Your task to perform on an android device: Open the calendar and show me this week's events? Image 0: 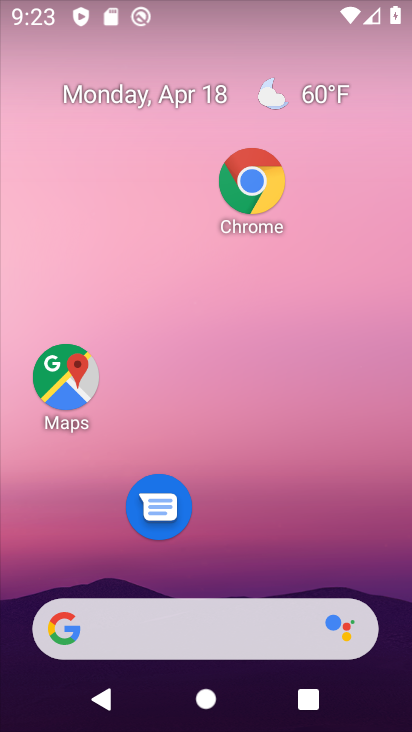
Step 0: drag from (261, 608) to (207, 112)
Your task to perform on an android device: Open the calendar and show me this week's events? Image 1: 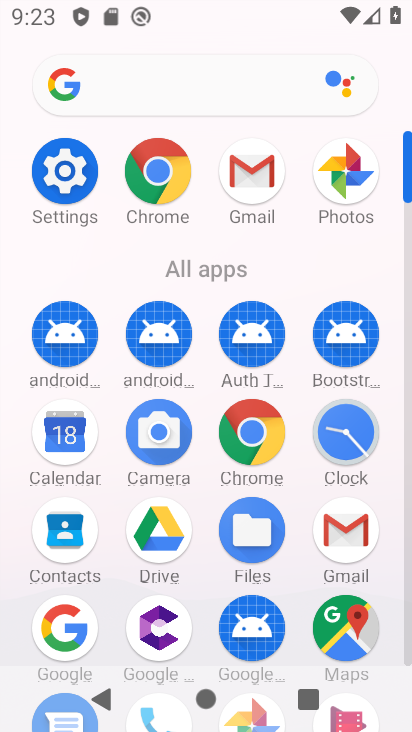
Step 1: click (60, 441)
Your task to perform on an android device: Open the calendar and show me this week's events? Image 2: 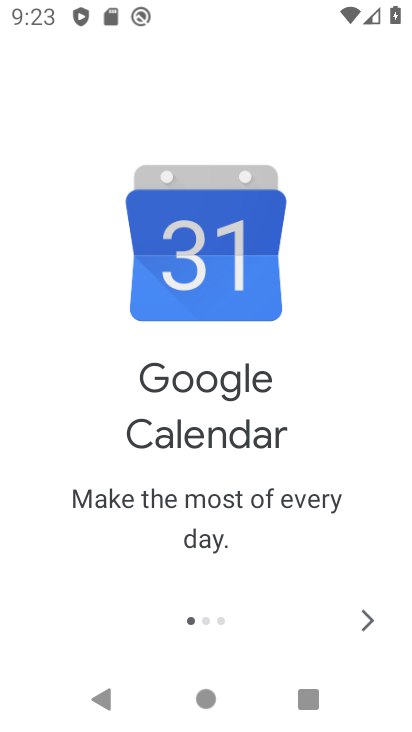
Step 2: click (367, 613)
Your task to perform on an android device: Open the calendar and show me this week's events? Image 3: 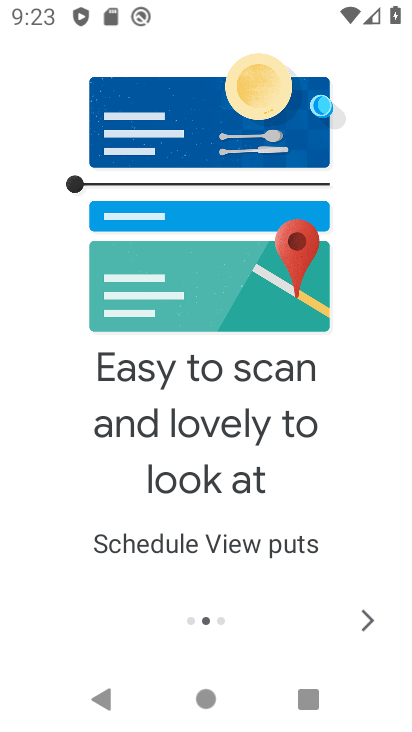
Step 3: click (369, 621)
Your task to perform on an android device: Open the calendar and show me this week's events? Image 4: 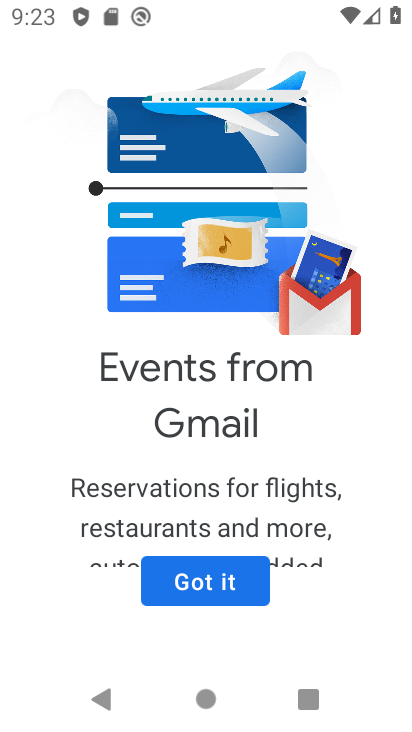
Step 4: click (174, 585)
Your task to perform on an android device: Open the calendar and show me this week's events? Image 5: 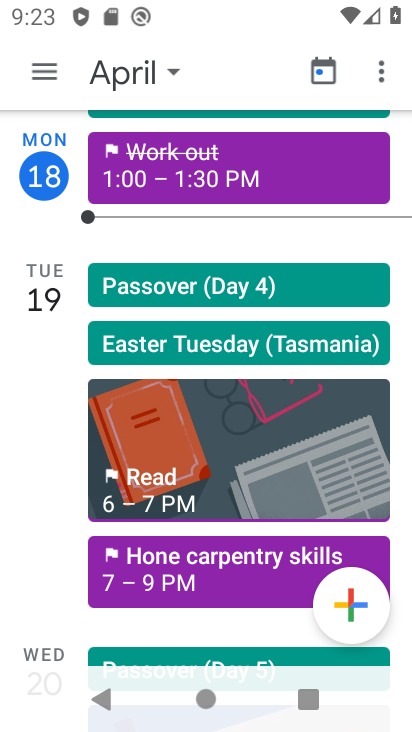
Step 5: click (52, 68)
Your task to perform on an android device: Open the calendar and show me this week's events? Image 6: 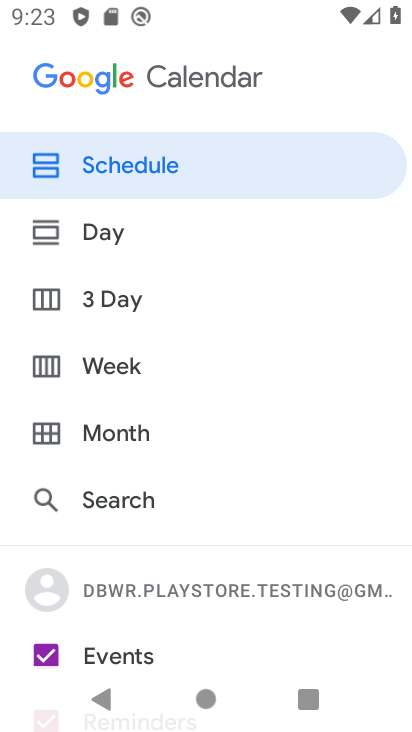
Step 6: click (97, 165)
Your task to perform on an android device: Open the calendar and show me this week's events? Image 7: 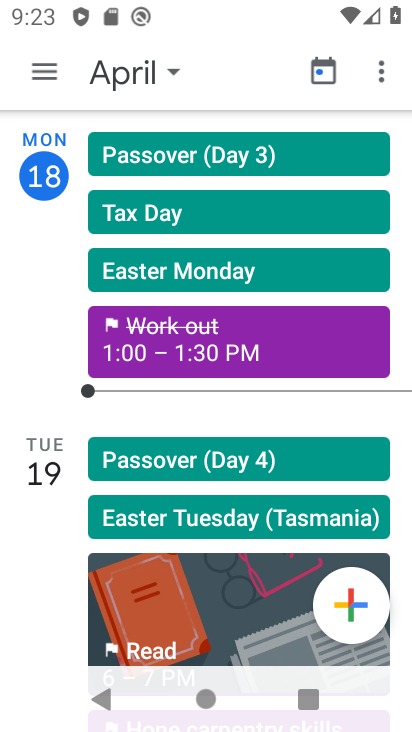
Step 7: click (39, 74)
Your task to perform on an android device: Open the calendar and show me this week's events? Image 8: 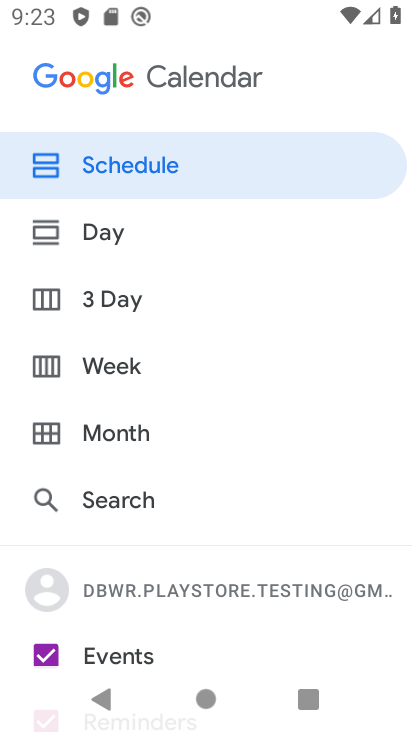
Step 8: click (93, 356)
Your task to perform on an android device: Open the calendar and show me this week's events? Image 9: 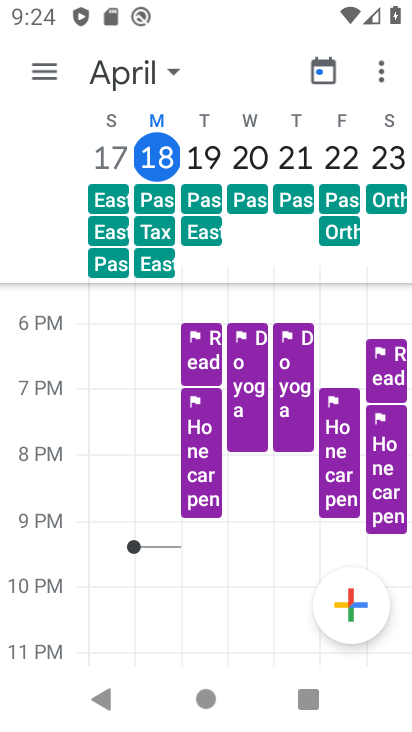
Step 9: task complete